Your task to perform on an android device: turn on improve location accuracy Image 0: 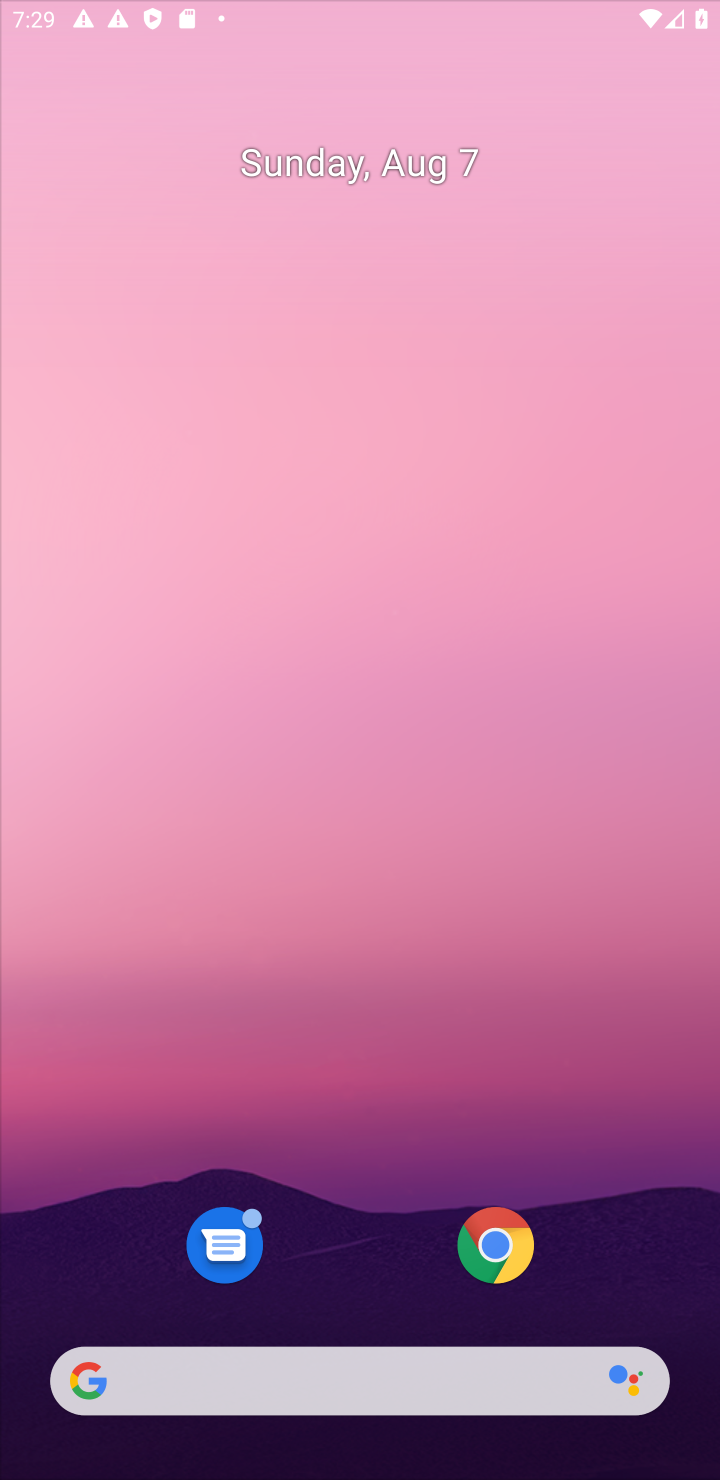
Step 0: click (495, 1227)
Your task to perform on an android device: turn on improve location accuracy Image 1: 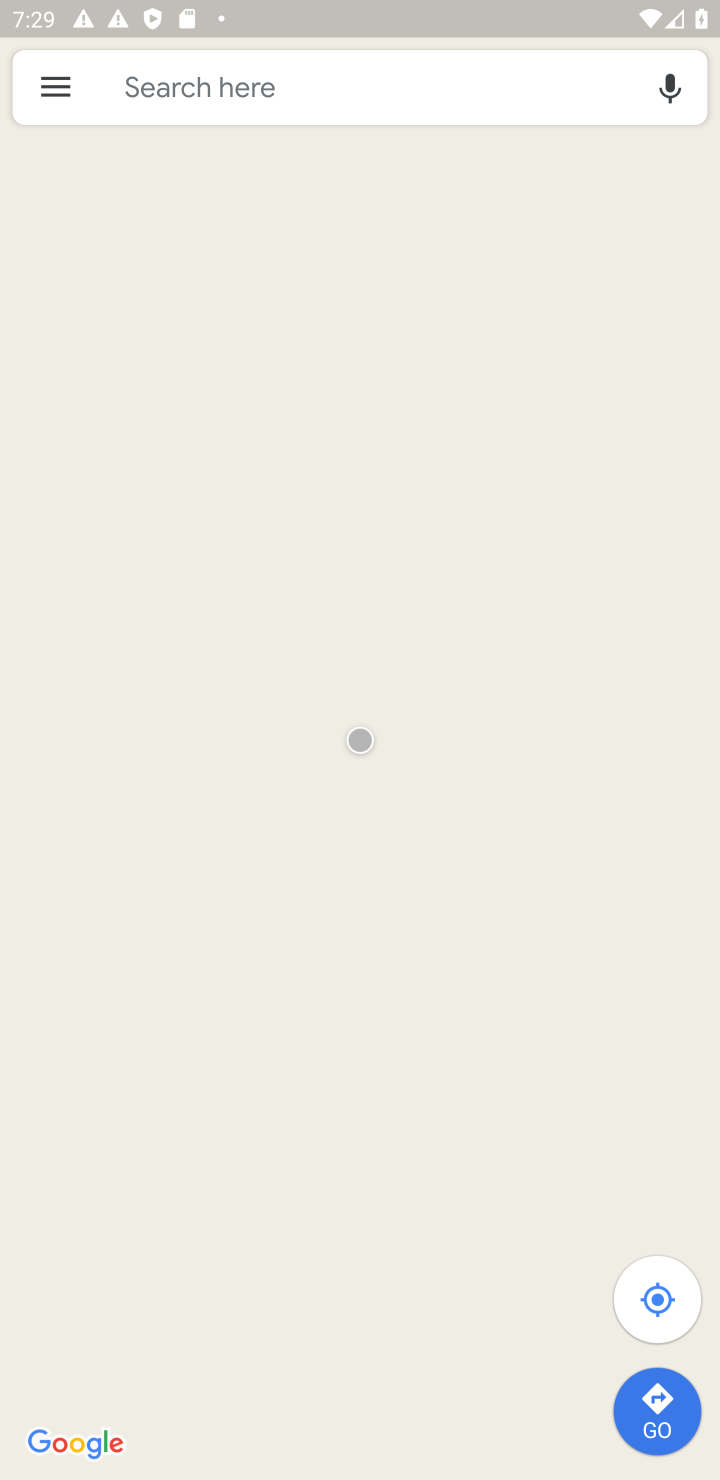
Step 1: press home button
Your task to perform on an android device: turn on improve location accuracy Image 2: 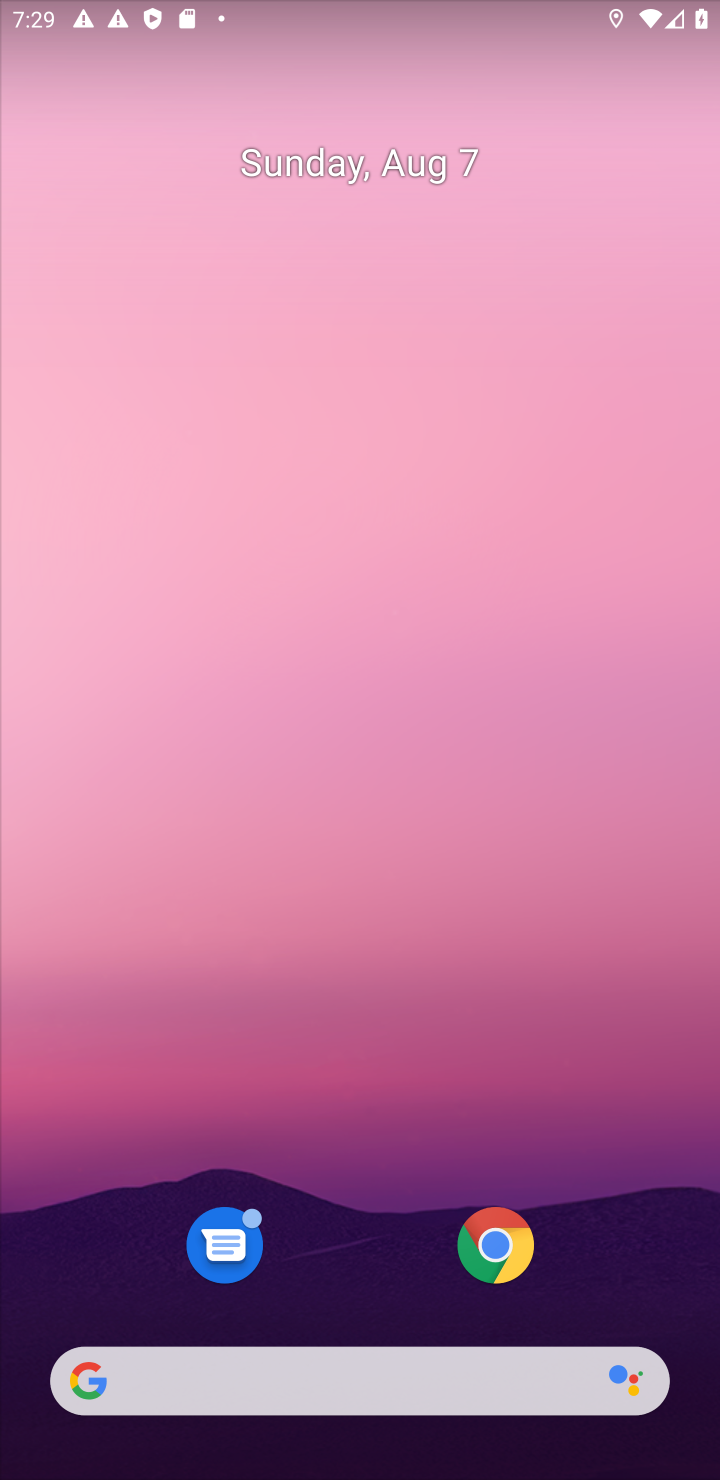
Step 2: drag from (388, 1204) to (506, 39)
Your task to perform on an android device: turn on improve location accuracy Image 3: 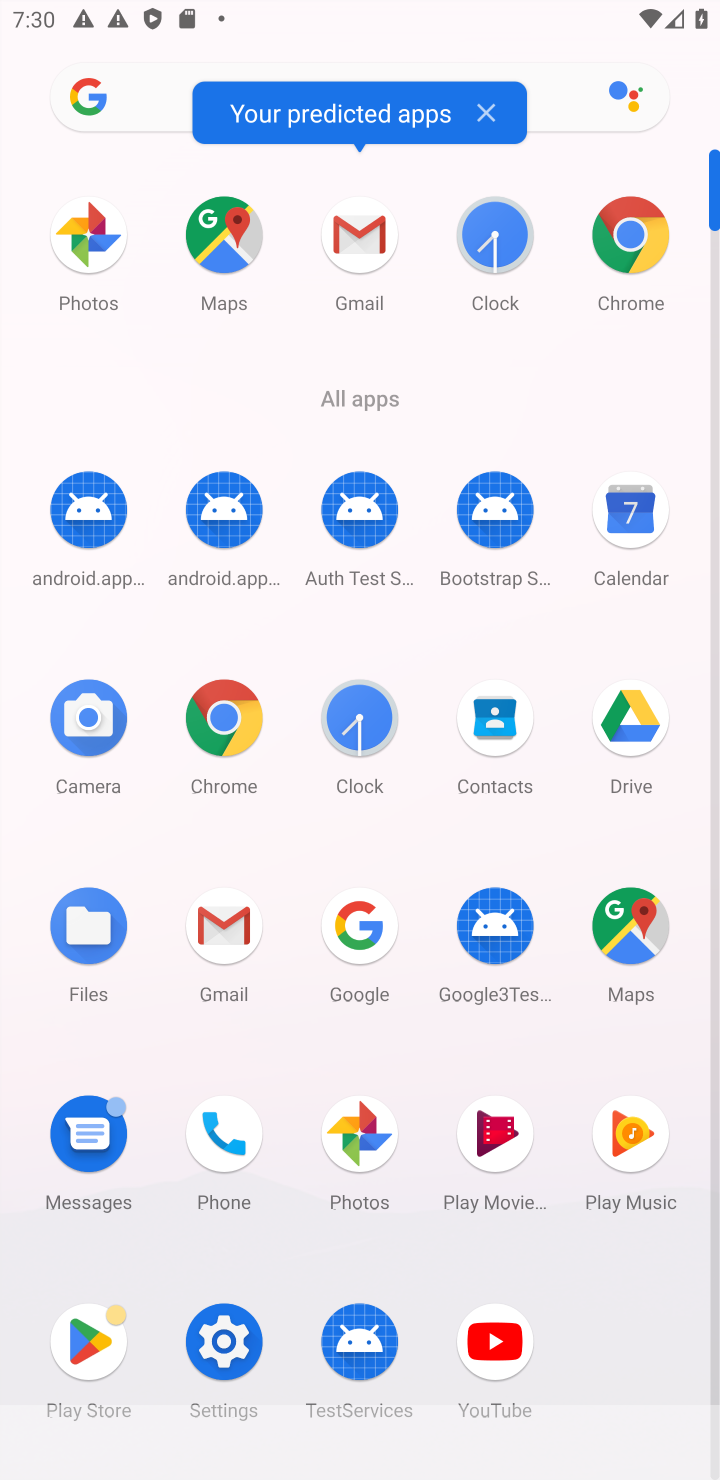
Step 3: click (223, 1329)
Your task to perform on an android device: turn on improve location accuracy Image 4: 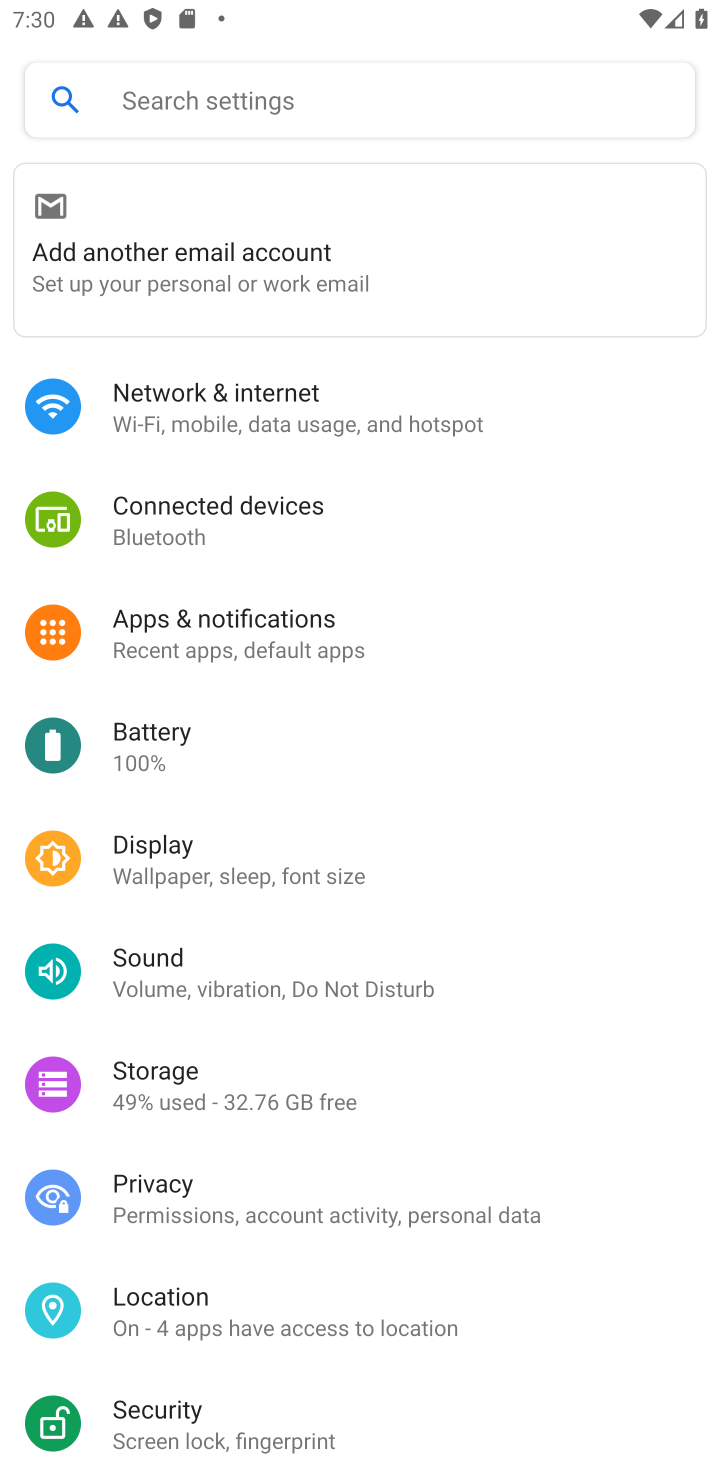
Step 4: click (174, 1323)
Your task to perform on an android device: turn on improve location accuracy Image 5: 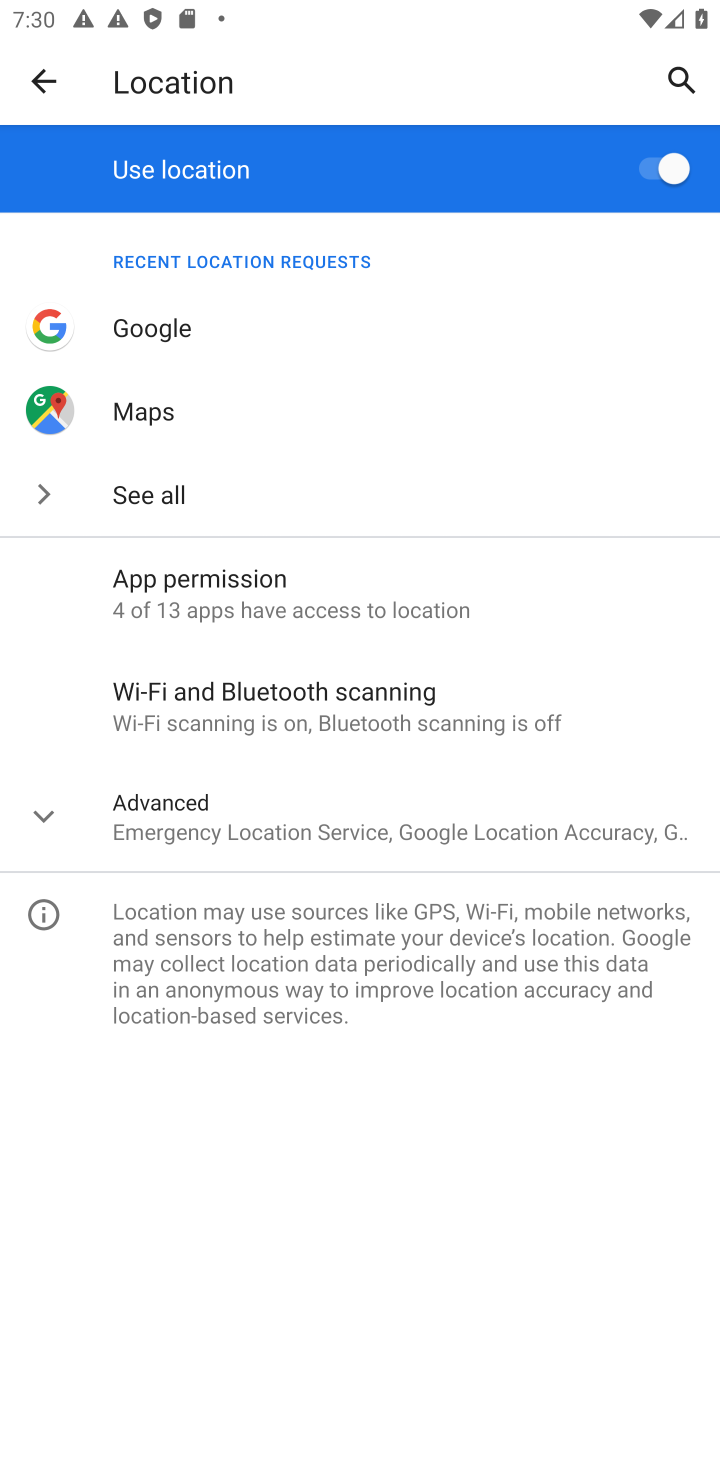
Step 5: click (107, 809)
Your task to perform on an android device: turn on improve location accuracy Image 6: 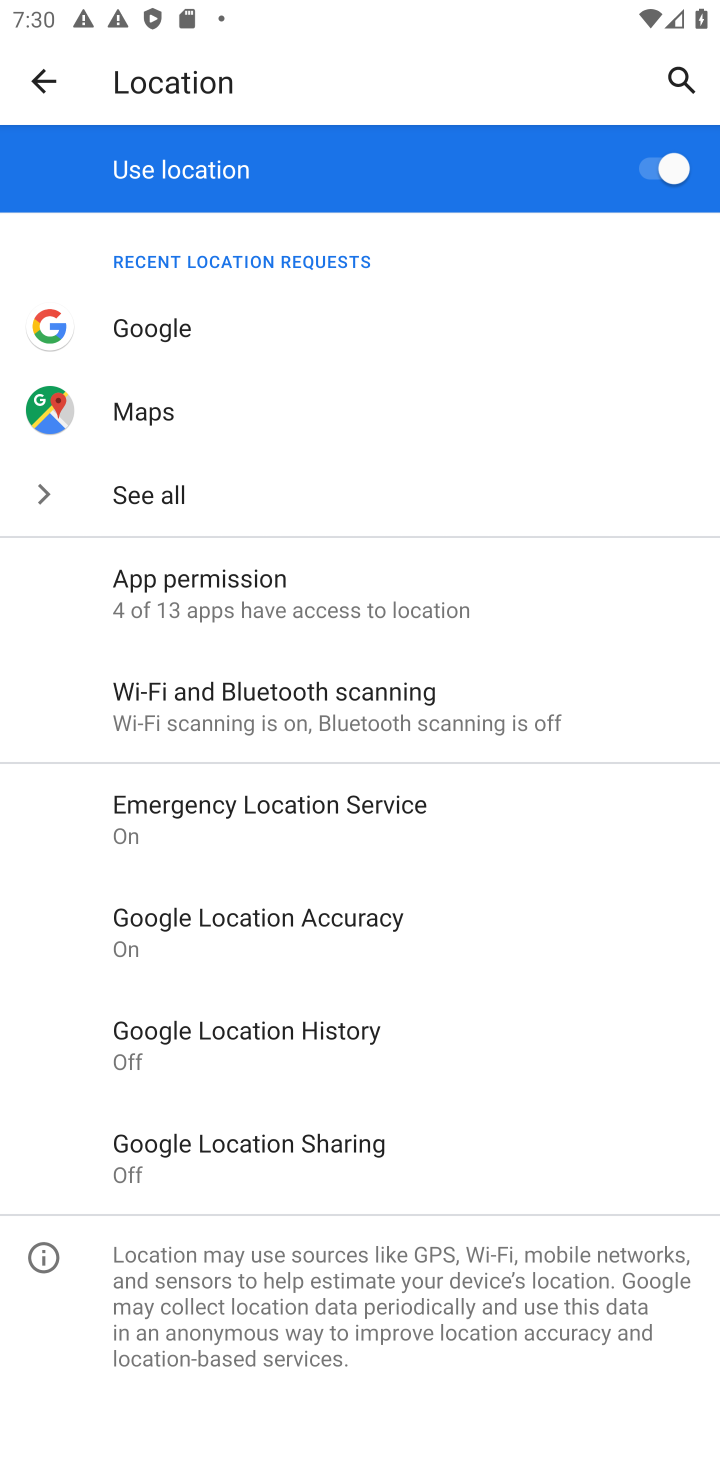
Step 6: click (398, 932)
Your task to perform on an android device: turn on improve location accuracy Image 7: 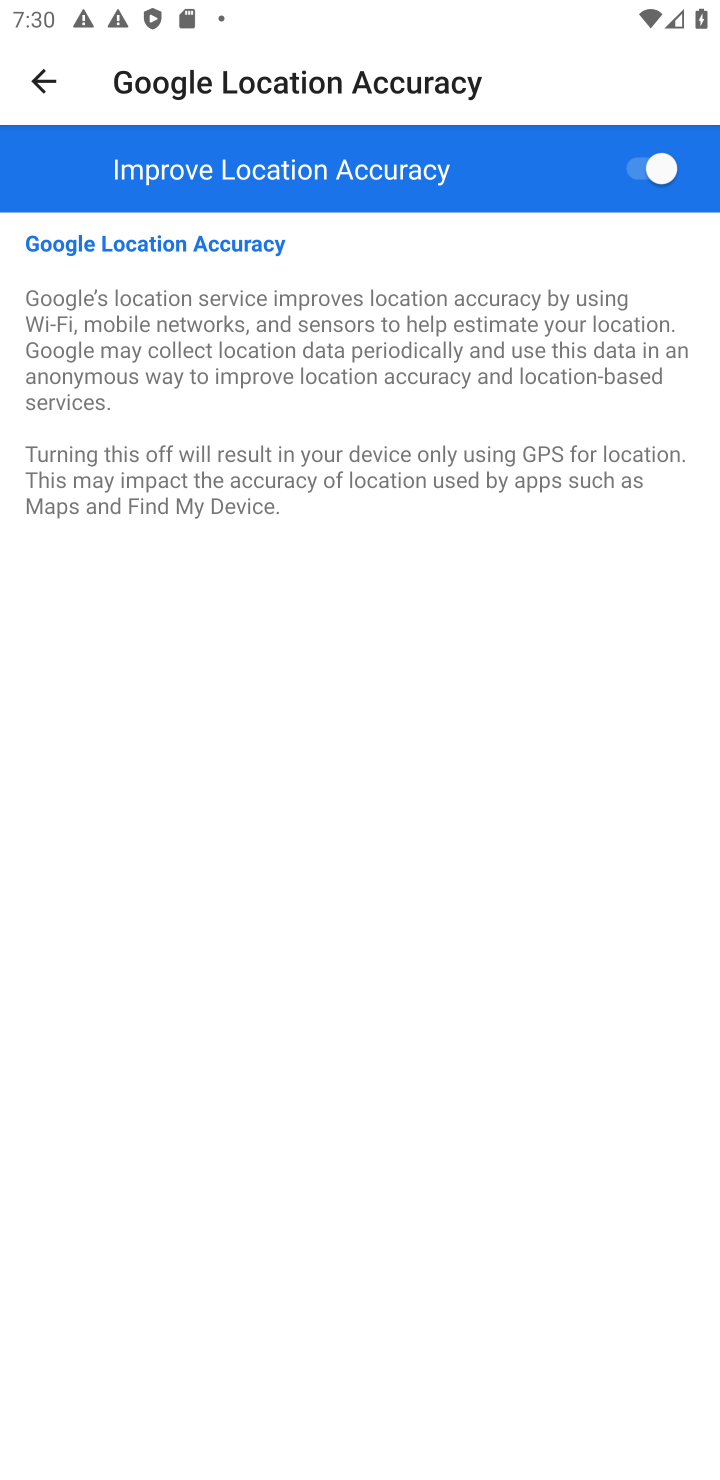
Step 7: task complete